Your task to perform on an android device: Show me popular videos on Youtube Image 0: 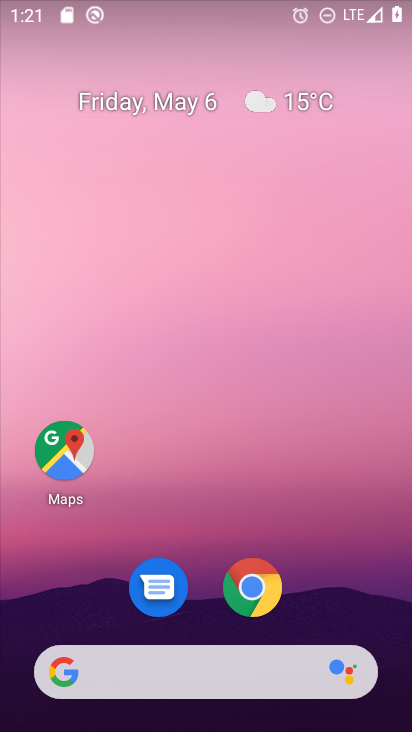
Step 0: drag from (328, 615) to (196, 5)
Your task to perform on an android device: Show me popular videos on Youtube Image 1: 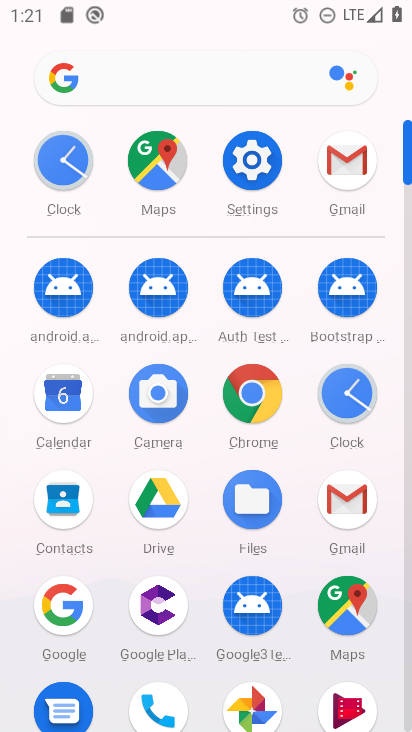
Step 1: drag from (295, 637) to (273, 144)
Your task to perform on an android device: Show me popular videos on Youtube Image 2: 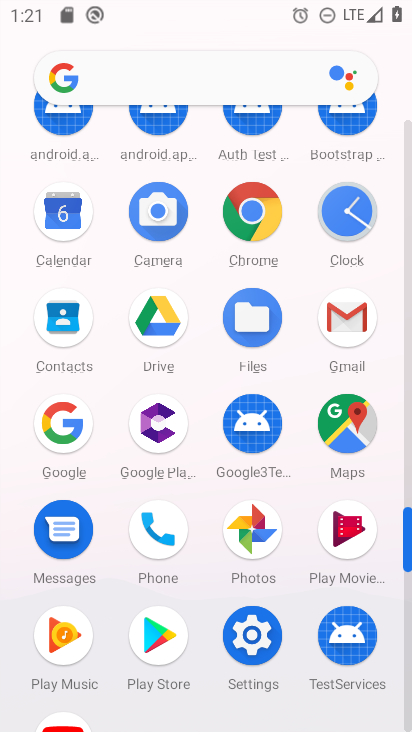
Step 2: click (59, 730)
Your task to perform on an android device: Show me popular videos on Youtube Image 3: 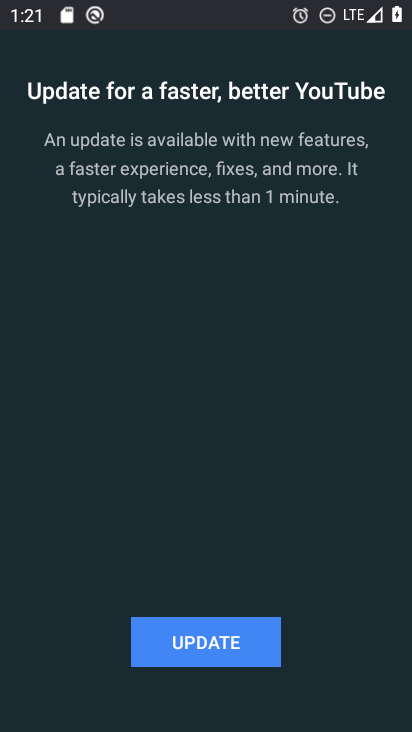
Step 3: click (242, 658)
Your task to perform on an android device: Show me popular videos on Youtube Image 4: 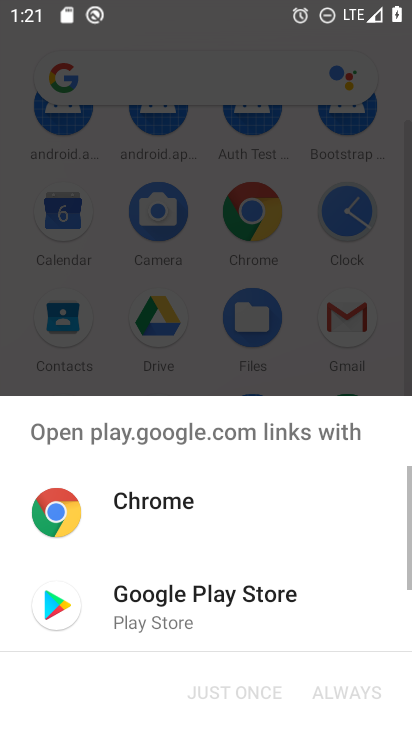
Step 4: click (185, 589)
Your task to perform on an android device: Show me popular videos on Youtube Image 5: 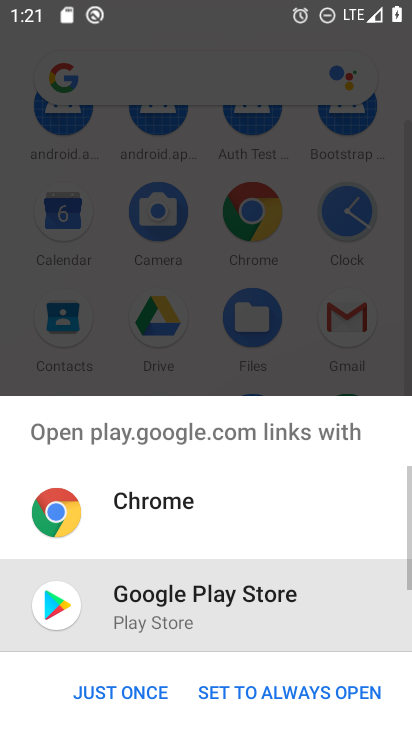
Step 5: click (110, 693)
Your task to perform on an android device: Show me popular videos on Youtube Image 6: 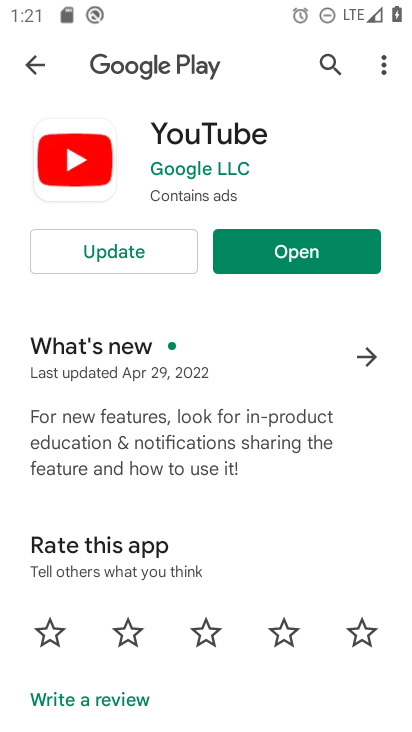
Step 6: click (145, 246)
Your task to perform on an android device: Show me popular videos on Youtube Image 7: 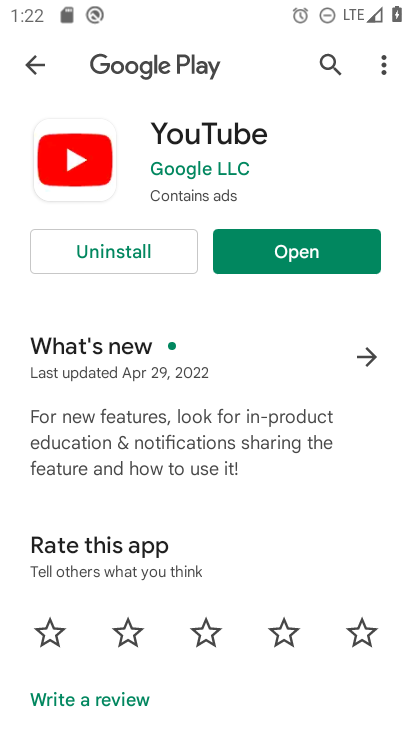
Step 7: click (322, 244)
Your task to perform on an android device: Show me popular videos on Youtube Image 8: 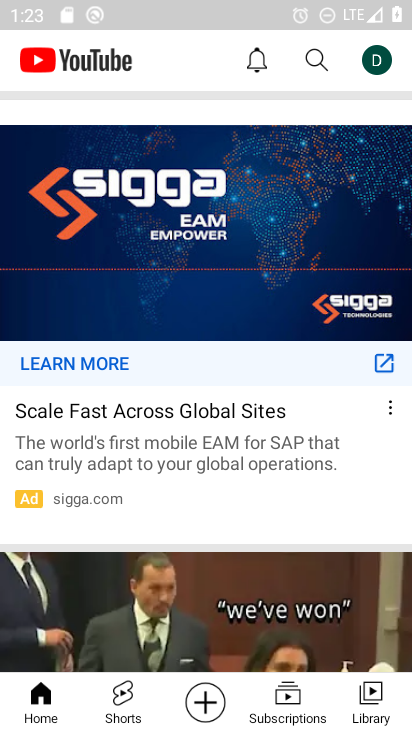
Step 8: click (368, 701)
Your task to perform on an android device: Show me popular videos on Youtube Image 9: 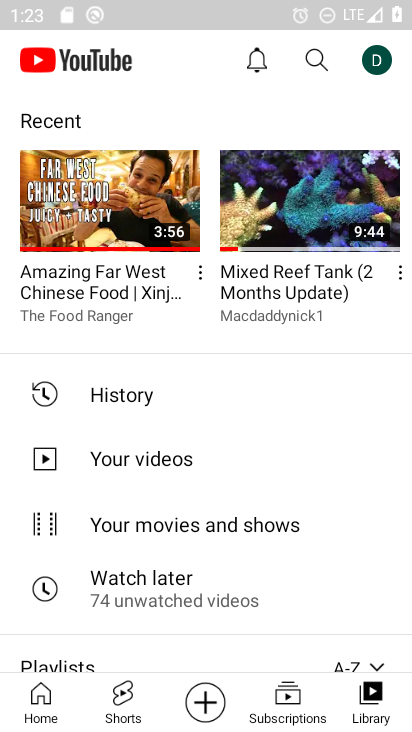
Step 9: click (47, 707)
Your task to perform on an android device: Show me popular videos on Youtube Image 10: 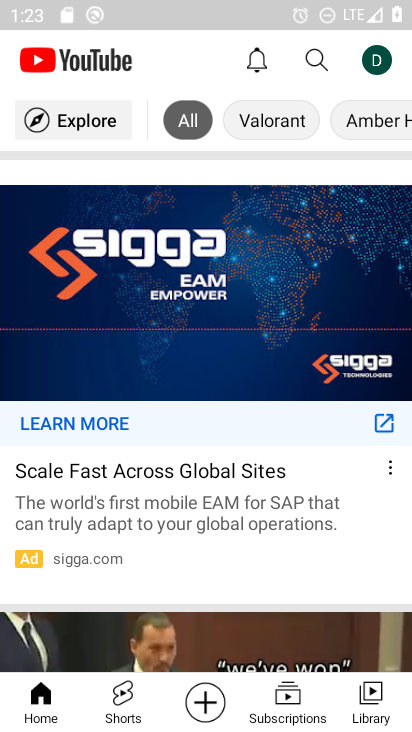
Step 10: click (78, 117)
Your task to perform on an android device: Show me popular videos on Youtube Image 11: 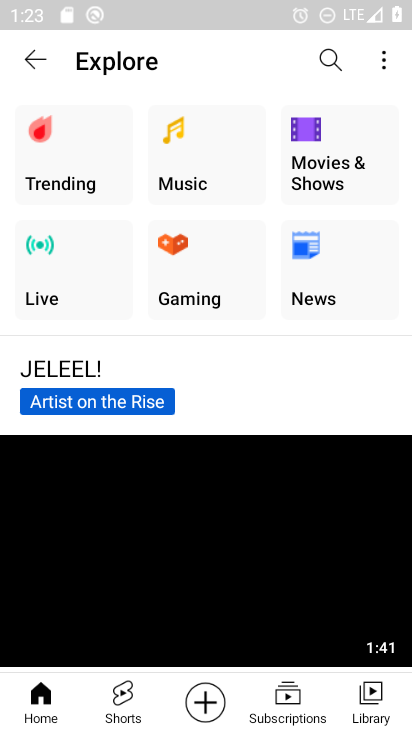
Step 11: click (66, 177)
Your task to perform on an android device: Show me popular videos on Youtube Image 12: 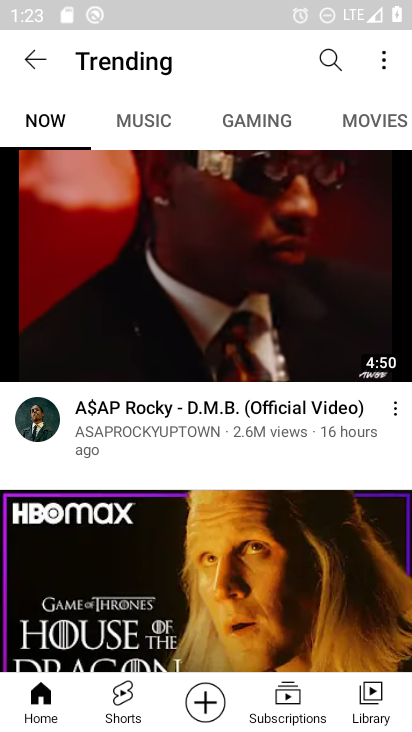
Step 12: task complete